Your task to perform on an android device: Do I have any events today? Image 0: 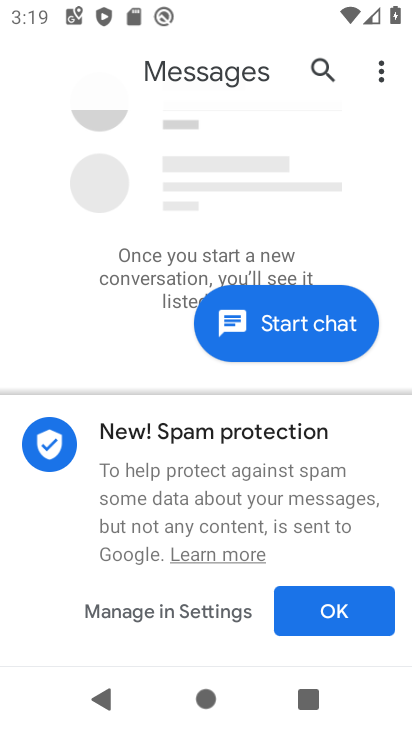
Step 0: press back button
Your task to perform on an android device: Do I have any events today? Image 1: 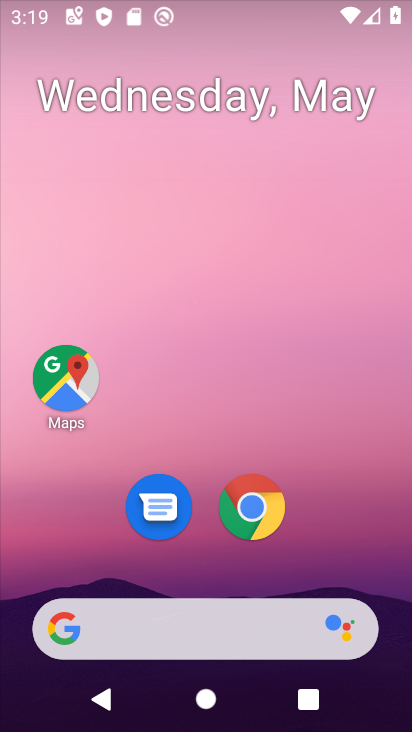
Step 1: drag from (192, 572) to (263, 53)
Your task to perform on an android device: Do I have any events today? Image 2: 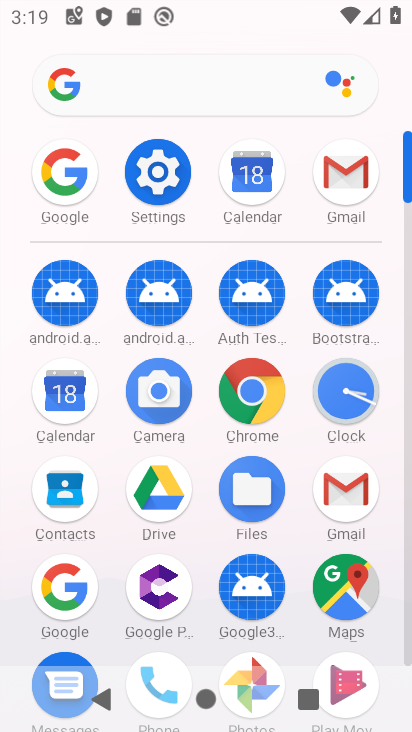
Step 2: click (263, 195)
Your task to perform on an android device: Do I have any events today? Image 3: 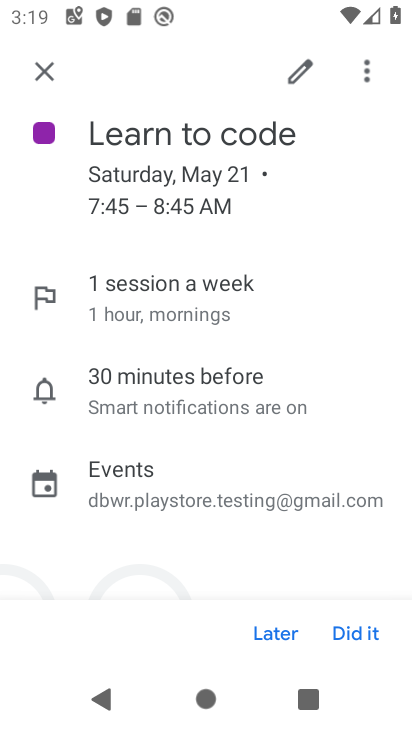
Step 3: click (41, 62)
Your task to perform on an android device: Do I have any events today? Image 4: 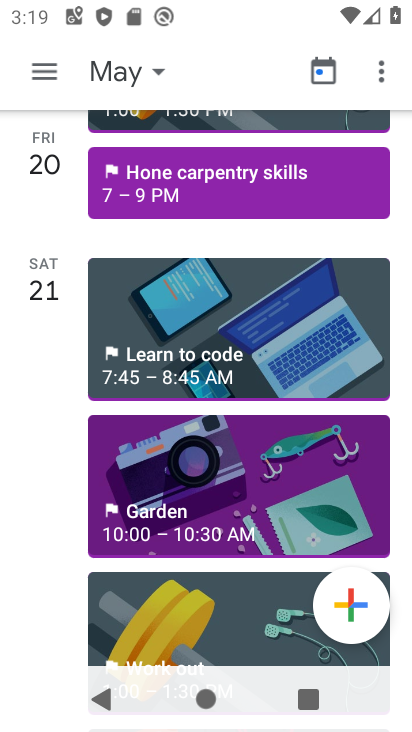
Step 4: task complete